Your task to perform on an android device: Open privacy settings Image 0: 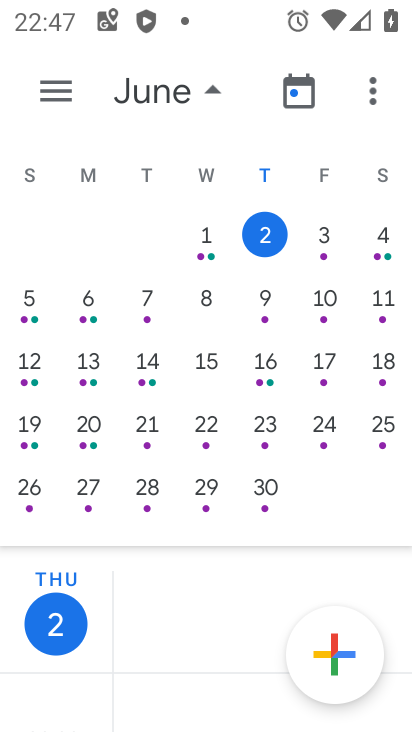
Step 0: press home button
Your task to perform on an android device: Open privacy settings Image 1: 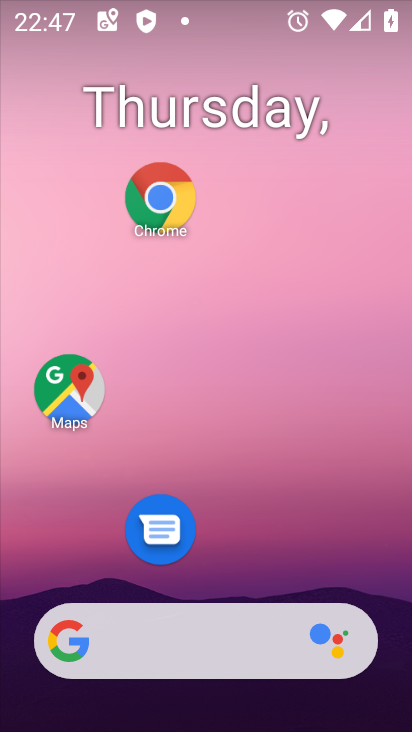
Step 1: drag from (246, 468) to (246, 22)
Your task to perform on an android device: Open privacy settings Image 2: 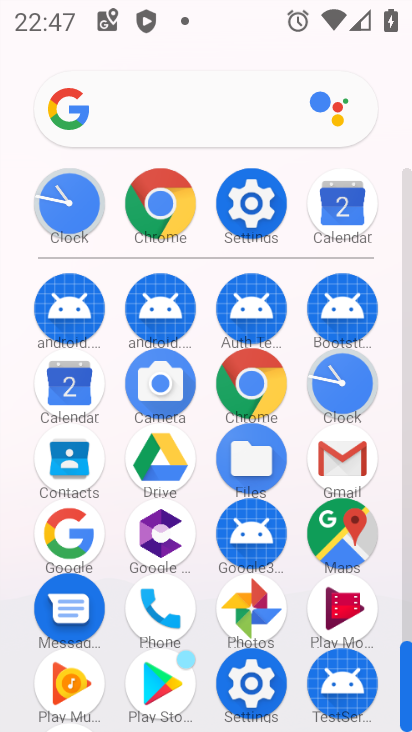
Step 2: click (247, 204)
Your task to perform on an android device: Open privacy settings Image 3: 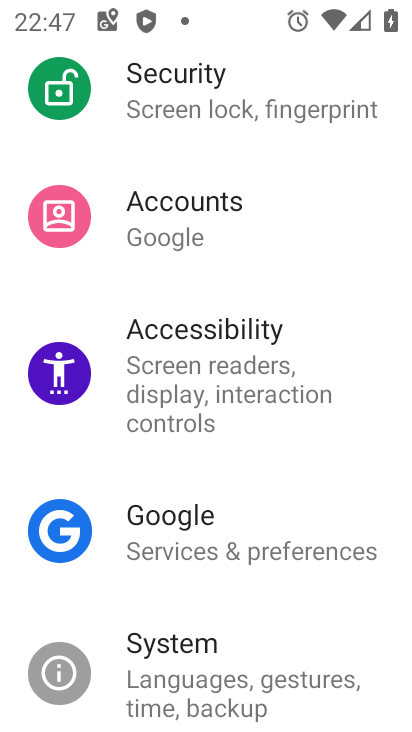
Step 3: drag from (273, 237) to (246, 626)
Your task to perform on an android device: Open privacy settings Image 4: 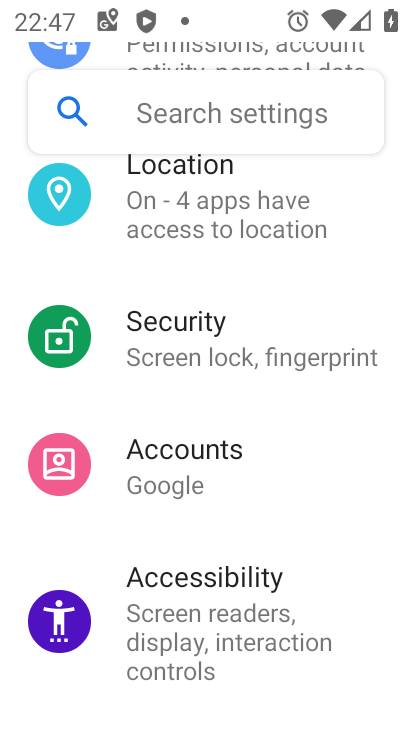
Step 4: drag from (216, 288) to (193, 678)
Your task to perform on an android device: Open privacy settings Image 5: 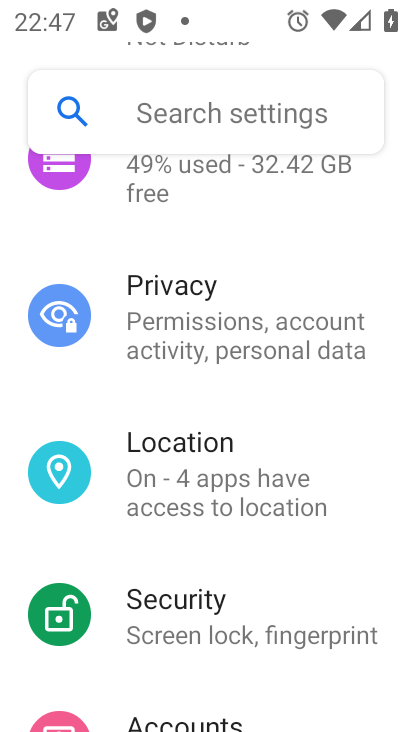
Step 5: click (160, 287)
Your task to perform on an android device: Open privacy settings Image 6: 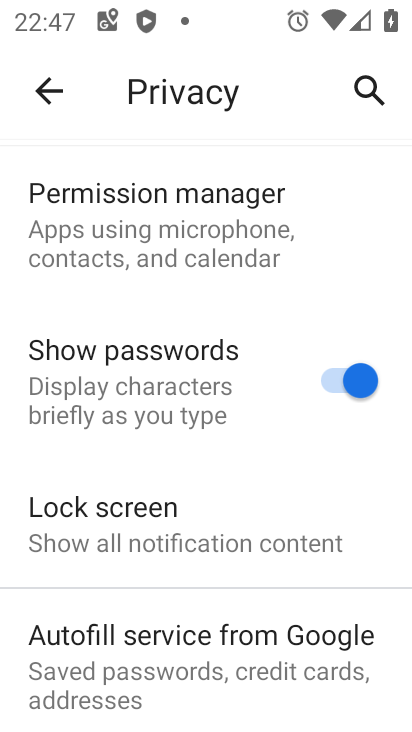
Step 6: task complete